Your task to perform on an android device: turn on javascript in the chrome app Image 0: 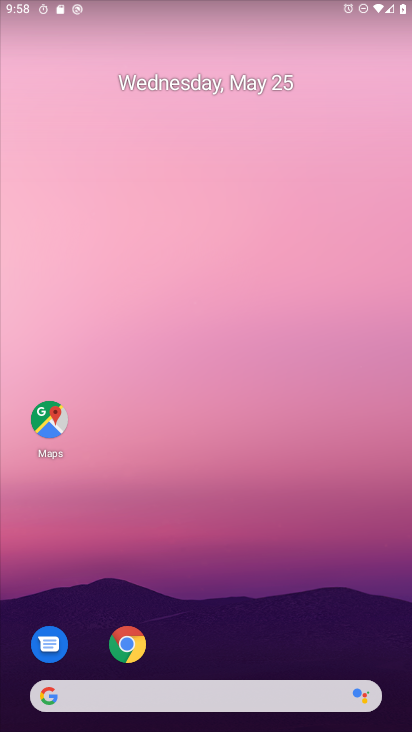
Step 0: drag from (297, 612) to (265, 147)
Your task to perform on an android device: turn on javascript in the chrome app Image 1: 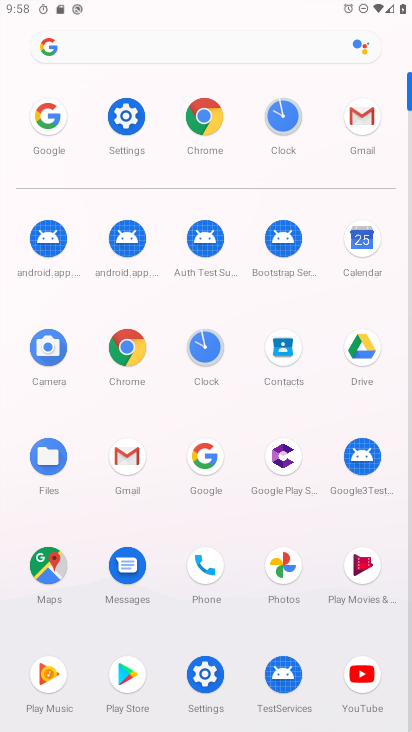
Step 1: click (216, 127)
Your task to perform on an android device: turn on javascript in the chrome app Image 2: 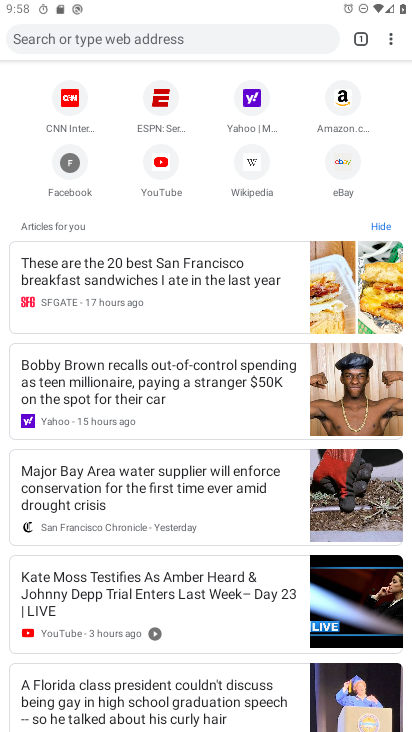
Step 2: click (389, 39)
Your task to perform on an android device: turn on javascript in the chrome app Image 3: 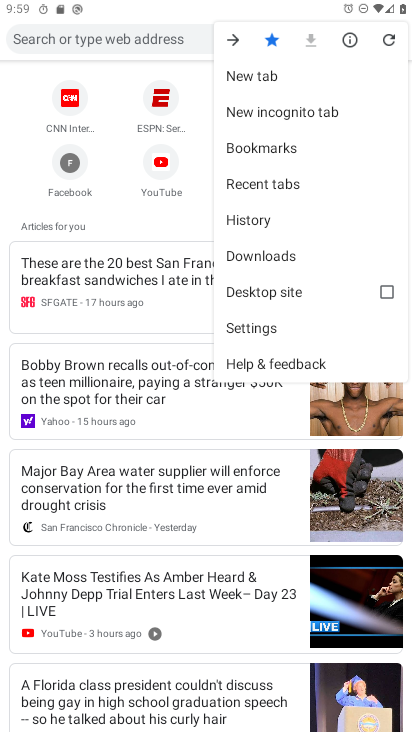
Step 3: click (277, 327)
Your task to perform on an android device: turn on javascript in the chrome app Image 4: 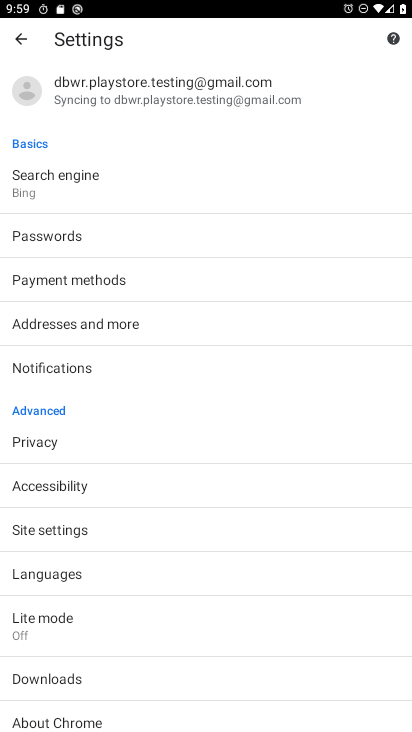
Step 4: click (105, 533)
Your task to perform on an android device: turn on javascript in the chrome app Image 5: 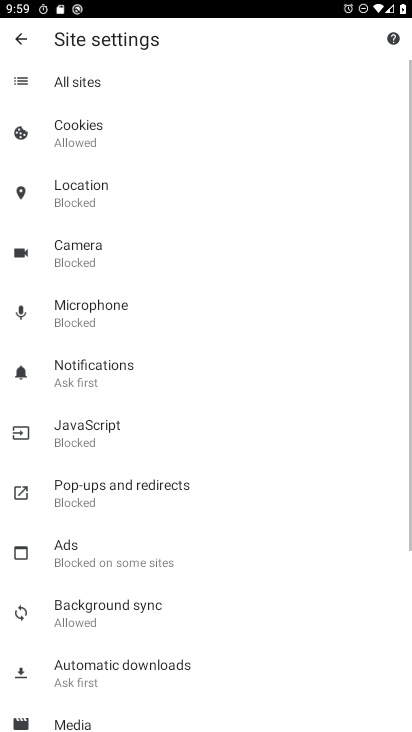
Step 5: click (150, 436)
Your task to perform on an android device: turn on javascript in the chrome app Image 6: 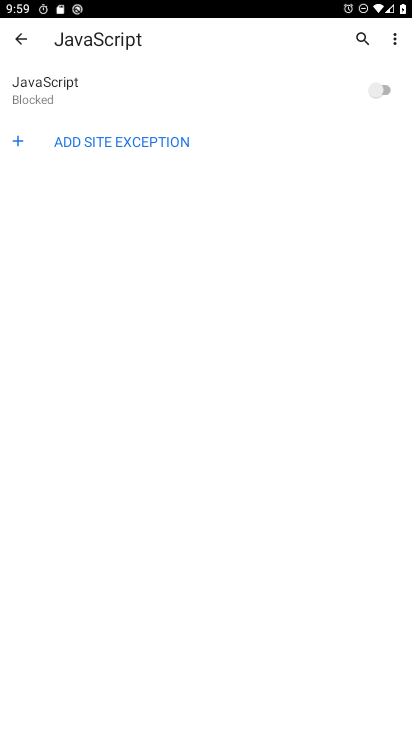
Step 6: click (388, 91)
Your task to perform on an android device: turn on javascript in the chrome app Image 7: 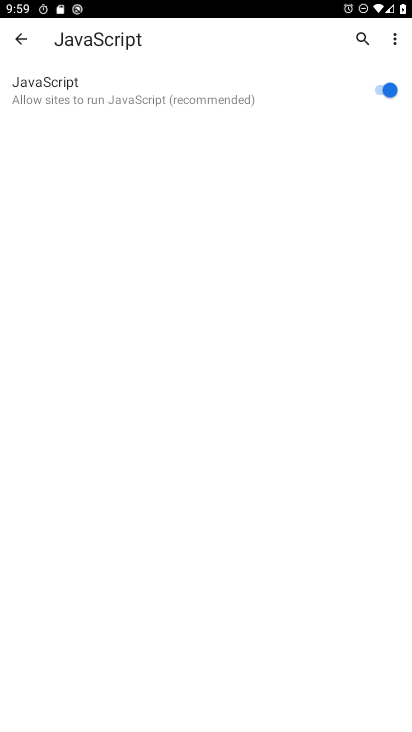
Step 7: task complete